Your task to perform on an android device: Check the weather Image 0: 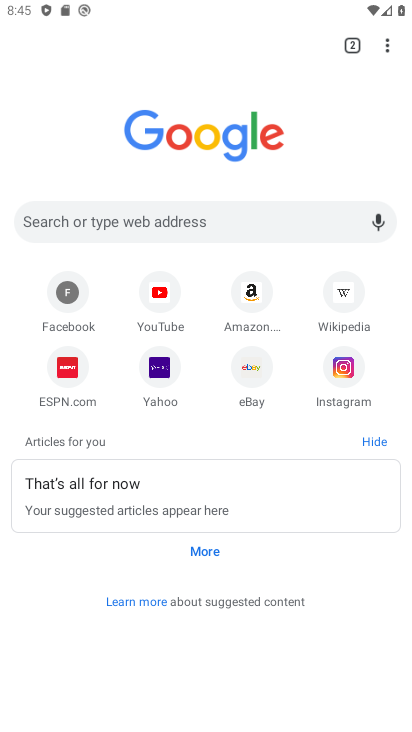
Step 0: press home button
Your task to perform on an android device: Check the weather Image 1: 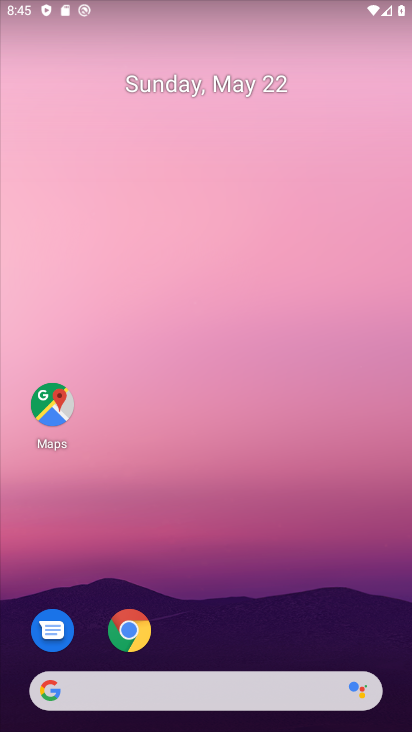
Step 1: drag from (3, 247) to (362, 204)
Your task to perform on an android device: Check the weather Image 2: 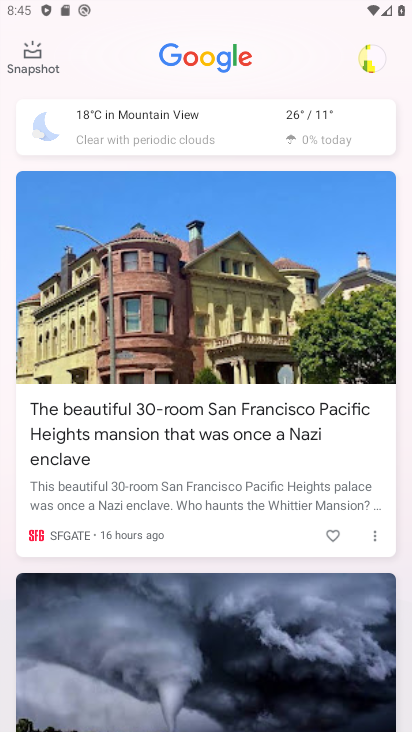
Step 2: click (311, 108)
Your task to perform on an android device: Check the weather Image 3: 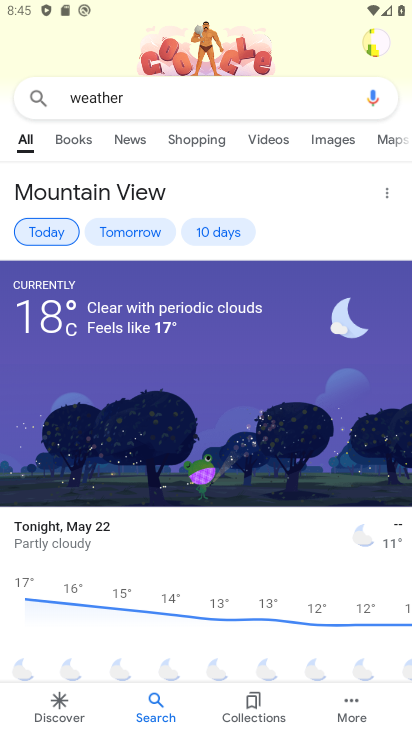
Step 3: task complete